Your task to perform on an android device: Clear all items from cart on ebay. Image 0: 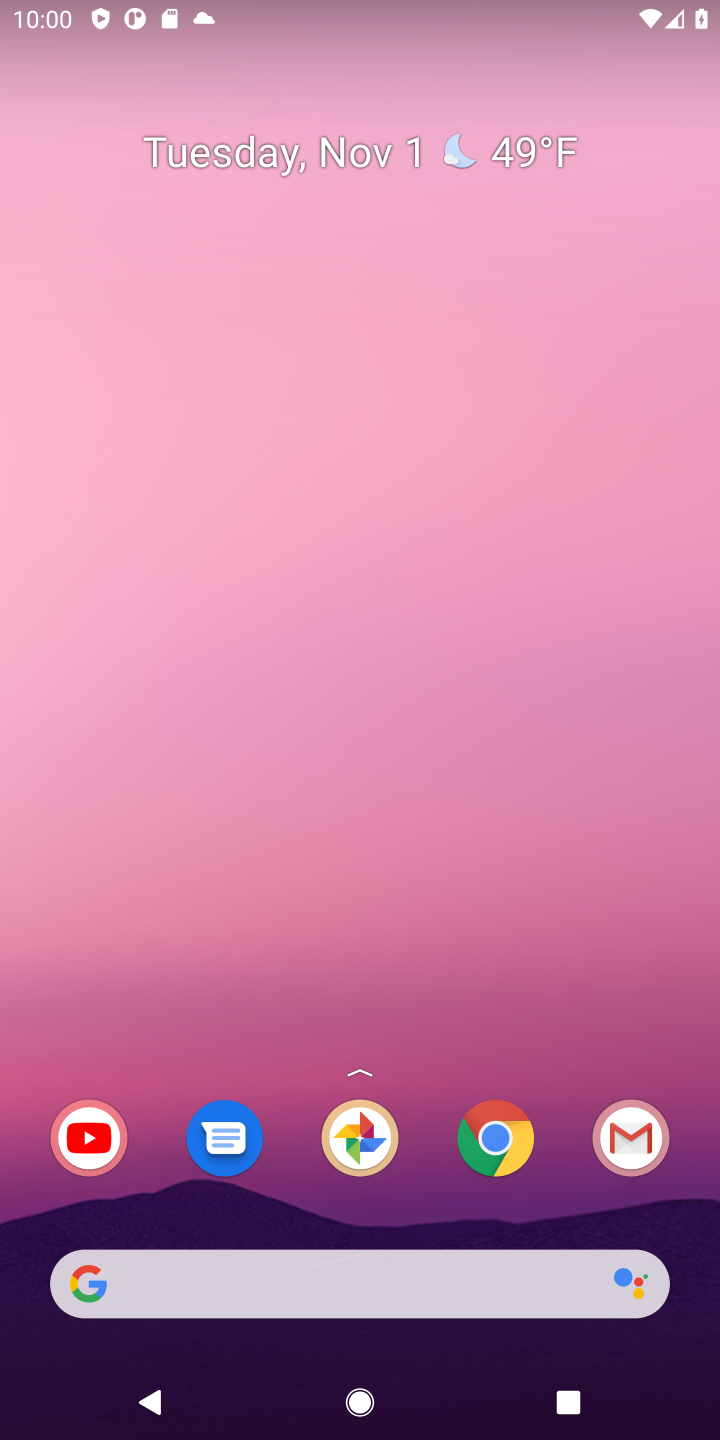
Step 0: click (496, 1140)
Your task to perform on an android device: Clear all items from cart on ebay. Image 1: 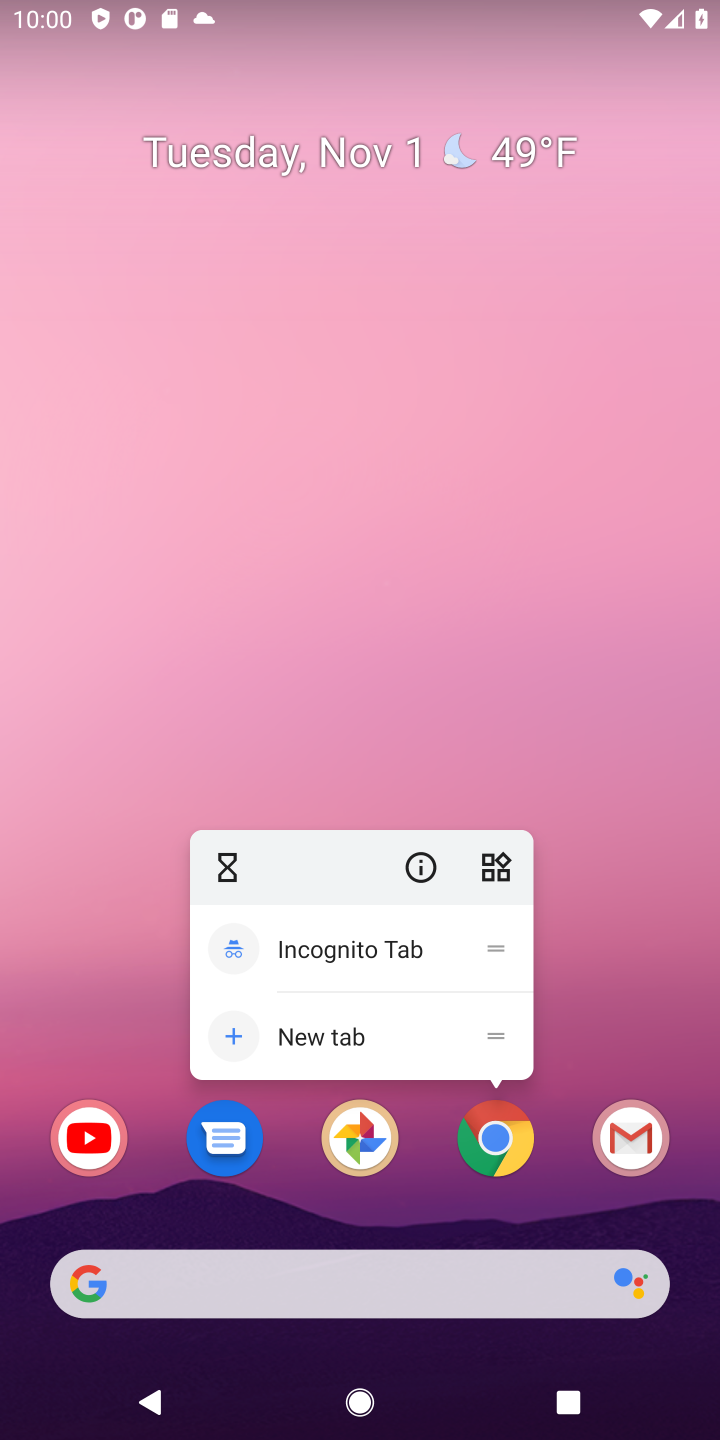
Step 1: click (498, 1134)
Your task to perform on an android device: Clear all items from cart on ebay. Image 2: 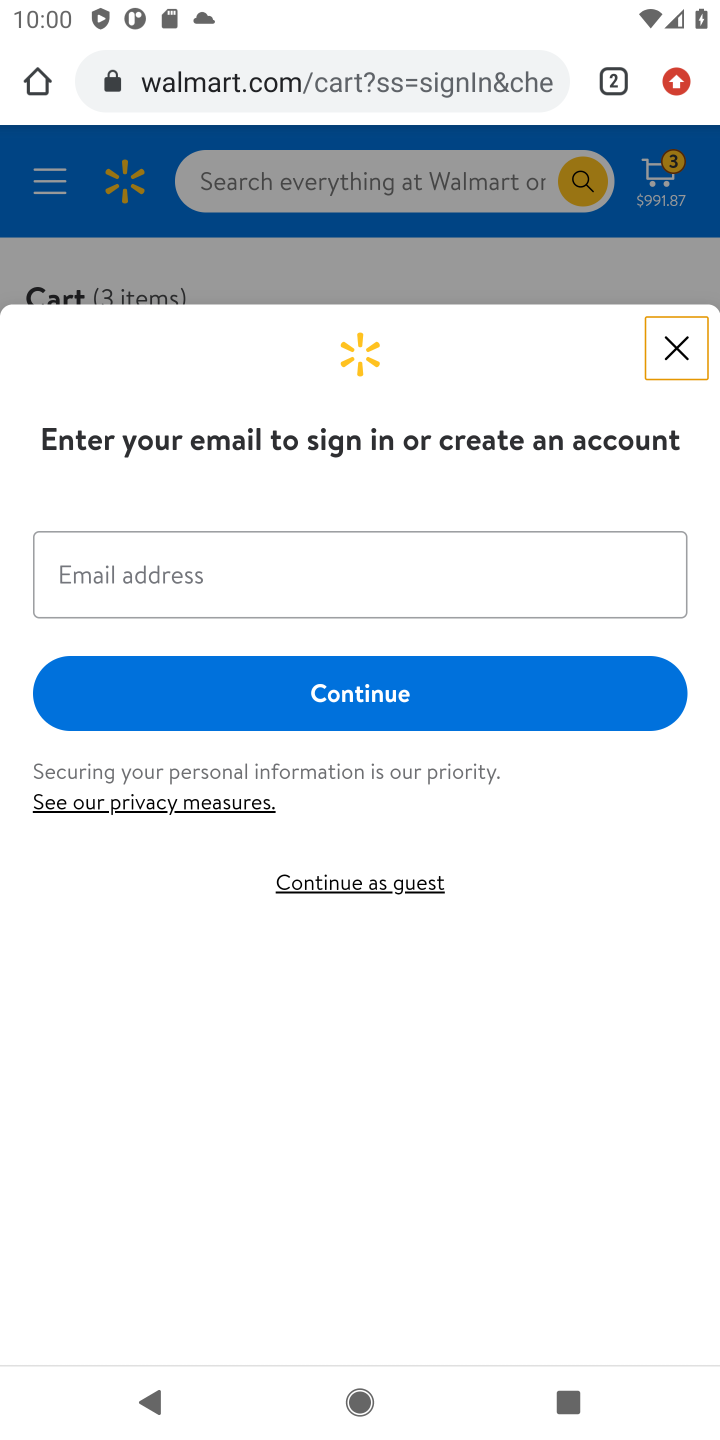
Step 2: click (368, 81)
Your task to perform on an android device: Clear all items from cart on ebay. Image 3: 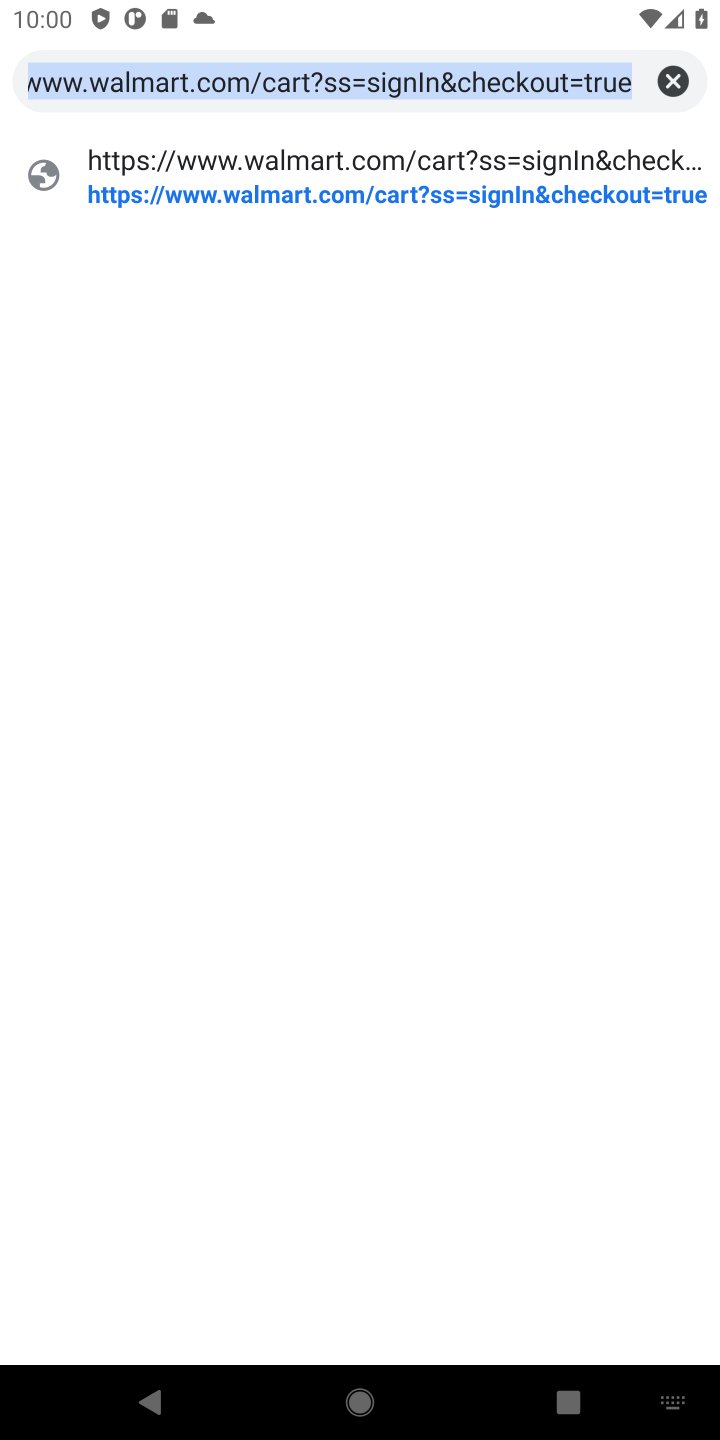
Step 3: click (666, 80)
Your task to perform on an android device: Clear all items from cart on ebay. Image 4: 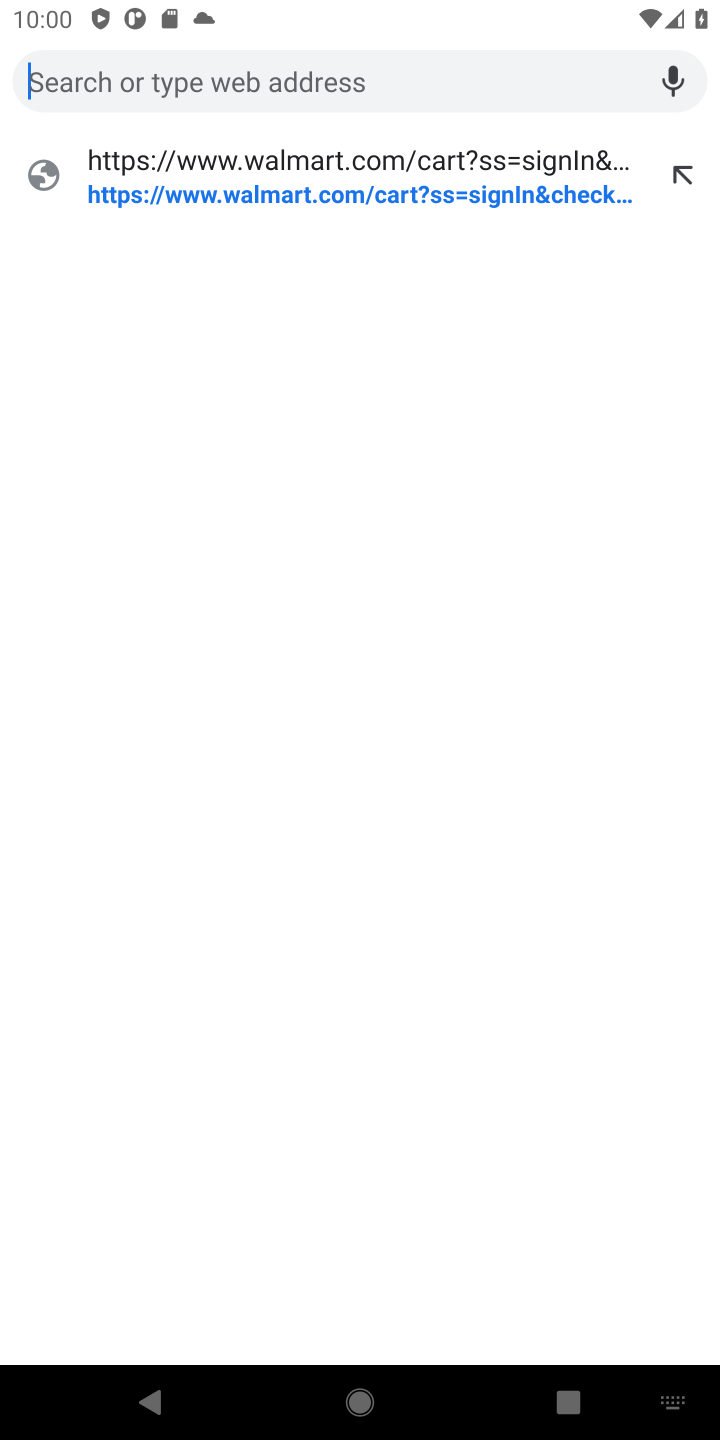
Step 4: type "ebay"
Your task to perform on an android device: Clear all items from cart on ebay. Image 5: 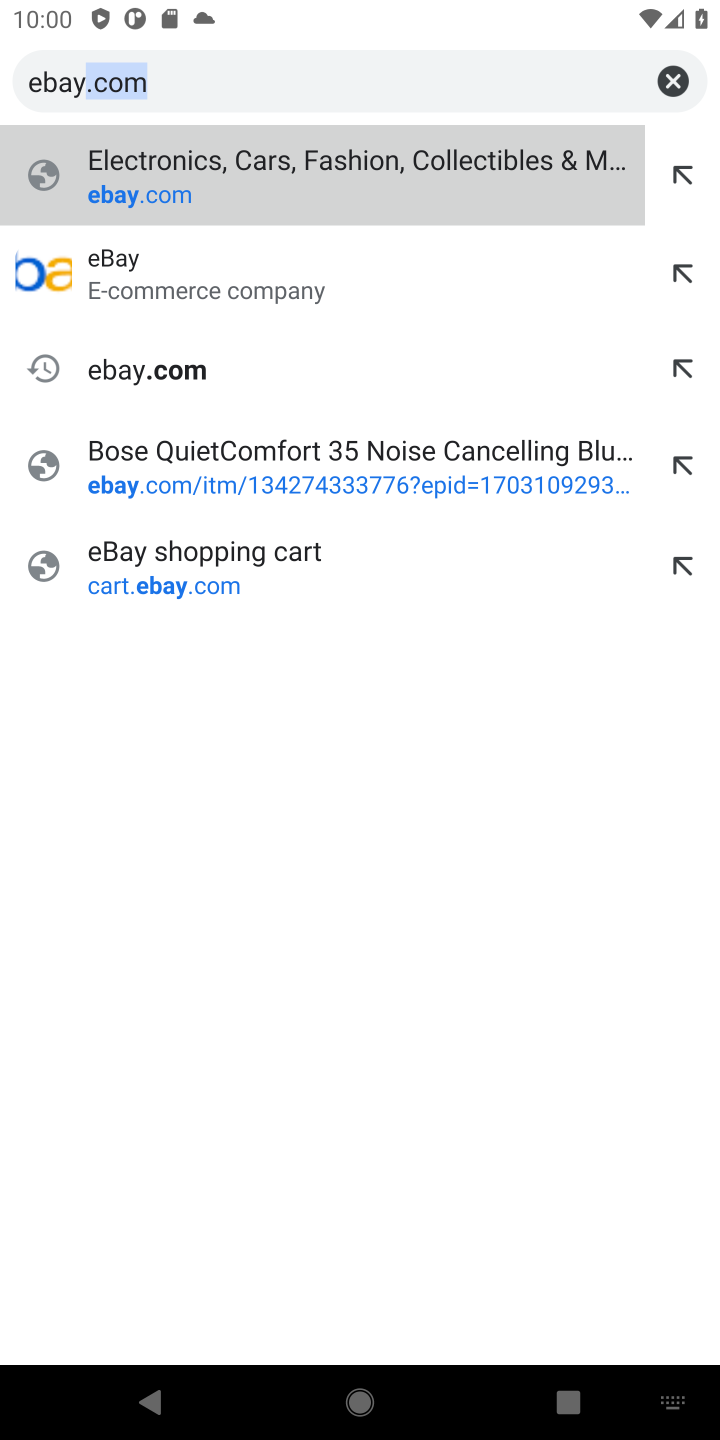
Step 5: click (182, 262)
Your task to perform on an android device: Clear all items from cart on ebay. Image 6: 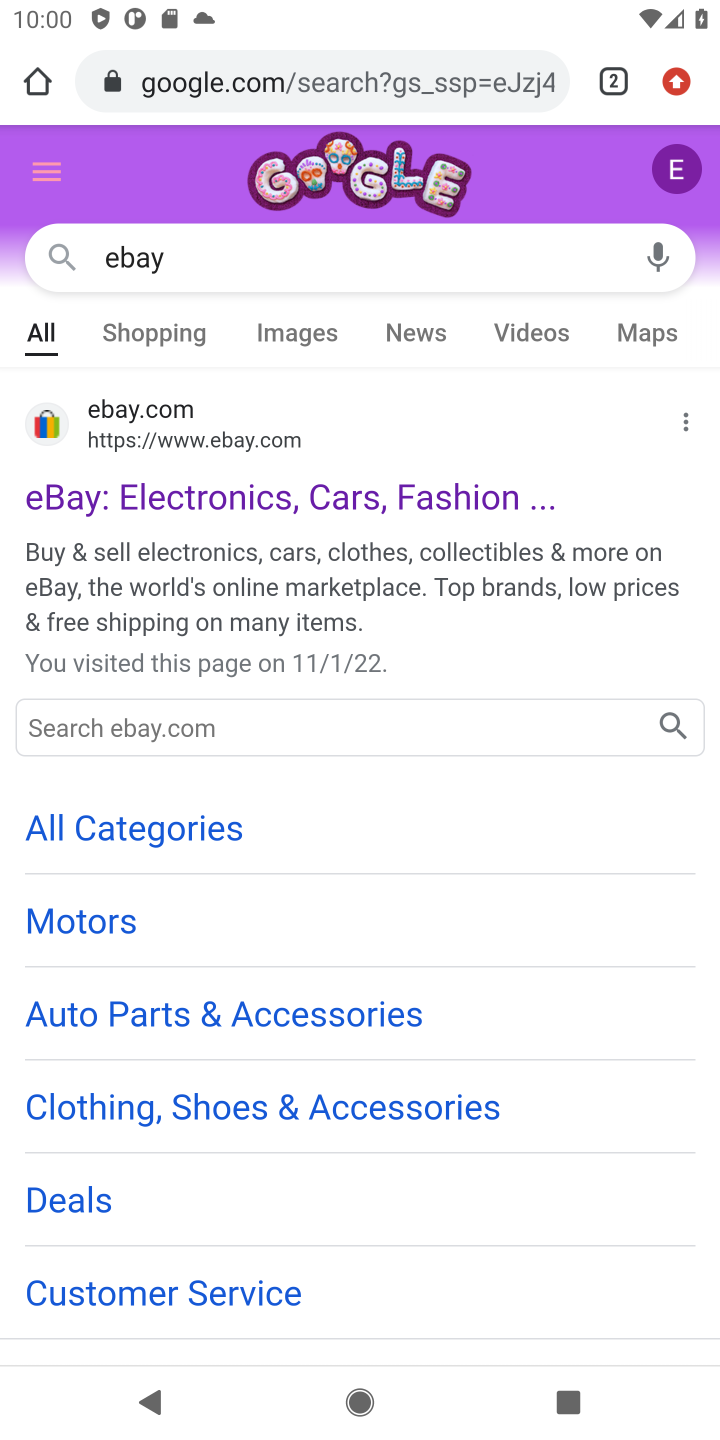
Step 6: click (330, 461)
Your task to perform on an android device: Clear all items from cart on ebay. Image 7: 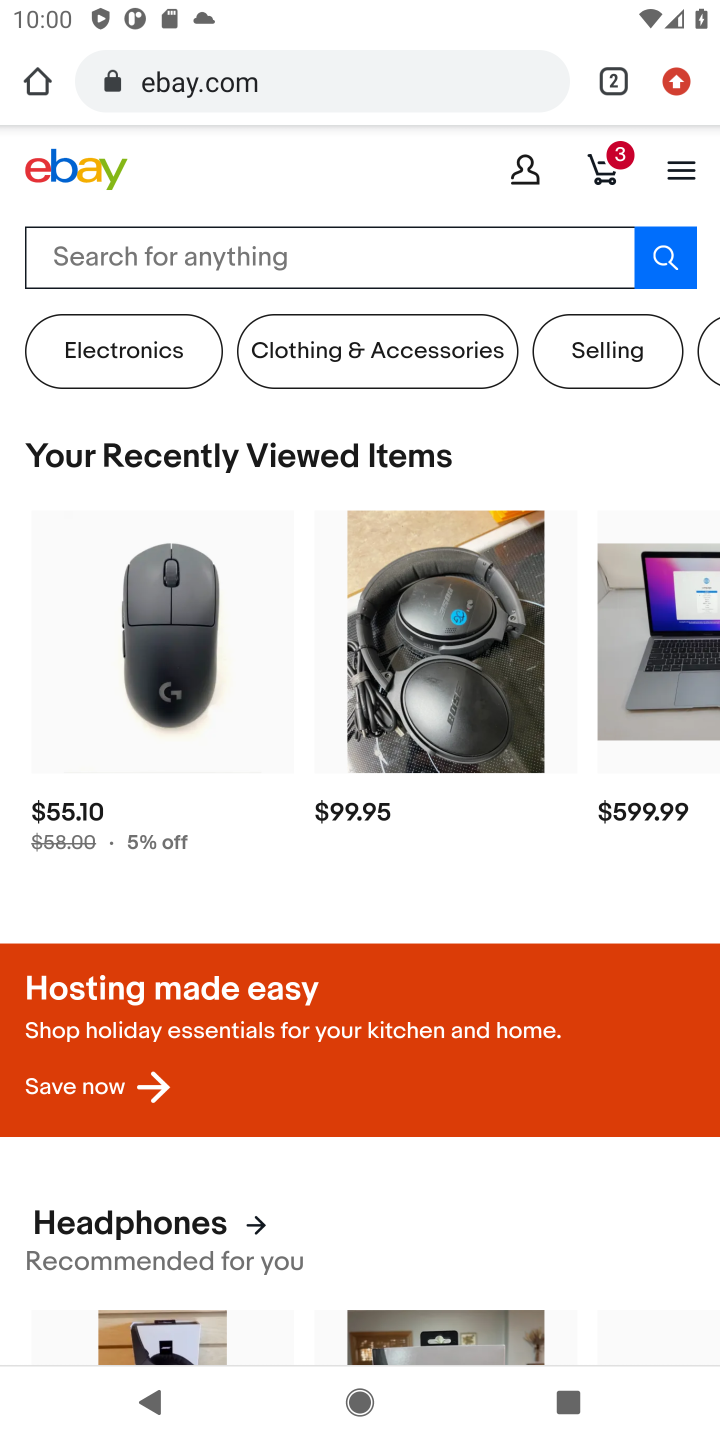
Step 7: click (607, 171)
Your task to perform on an android device: Clear all items from cart on ebay. Image 8: 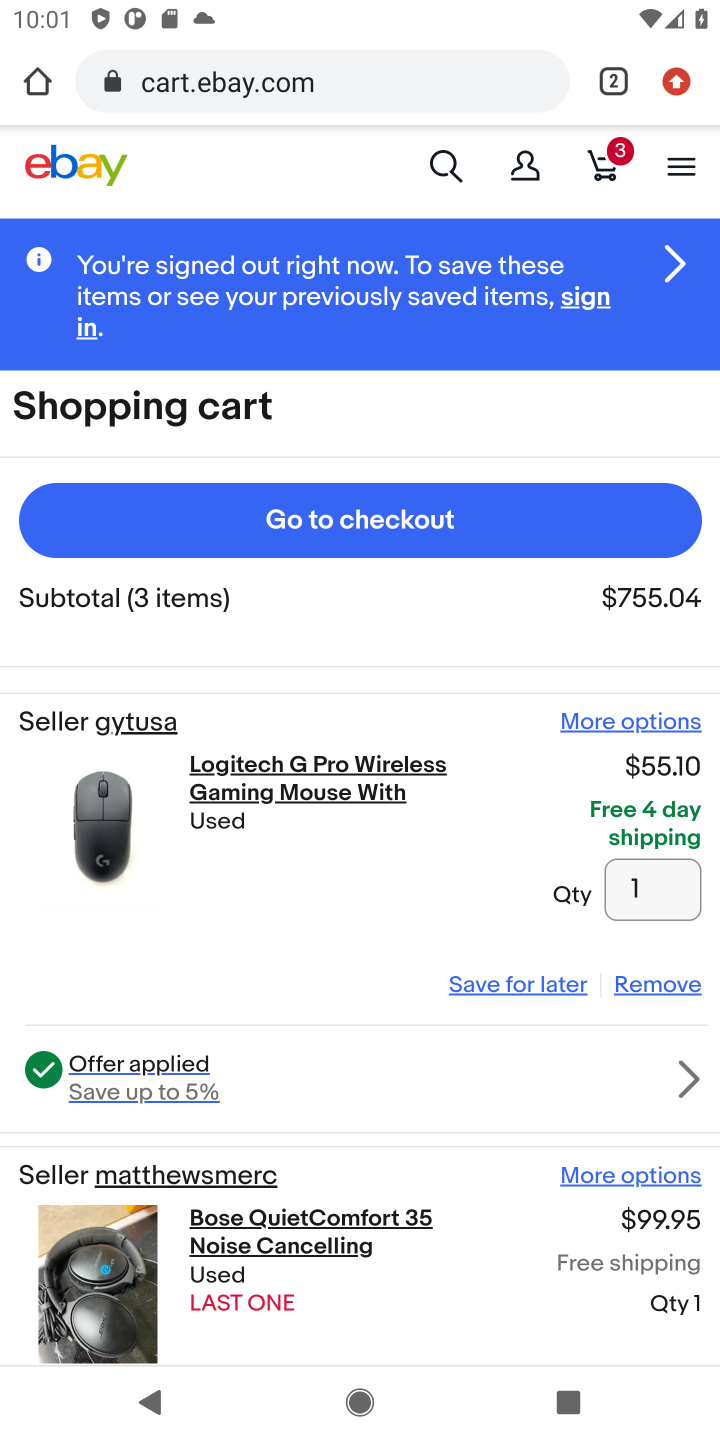
Step 8: click (645, 981)
Your task to perform on an android device: Clear all items from cart on ebay. Image 9: 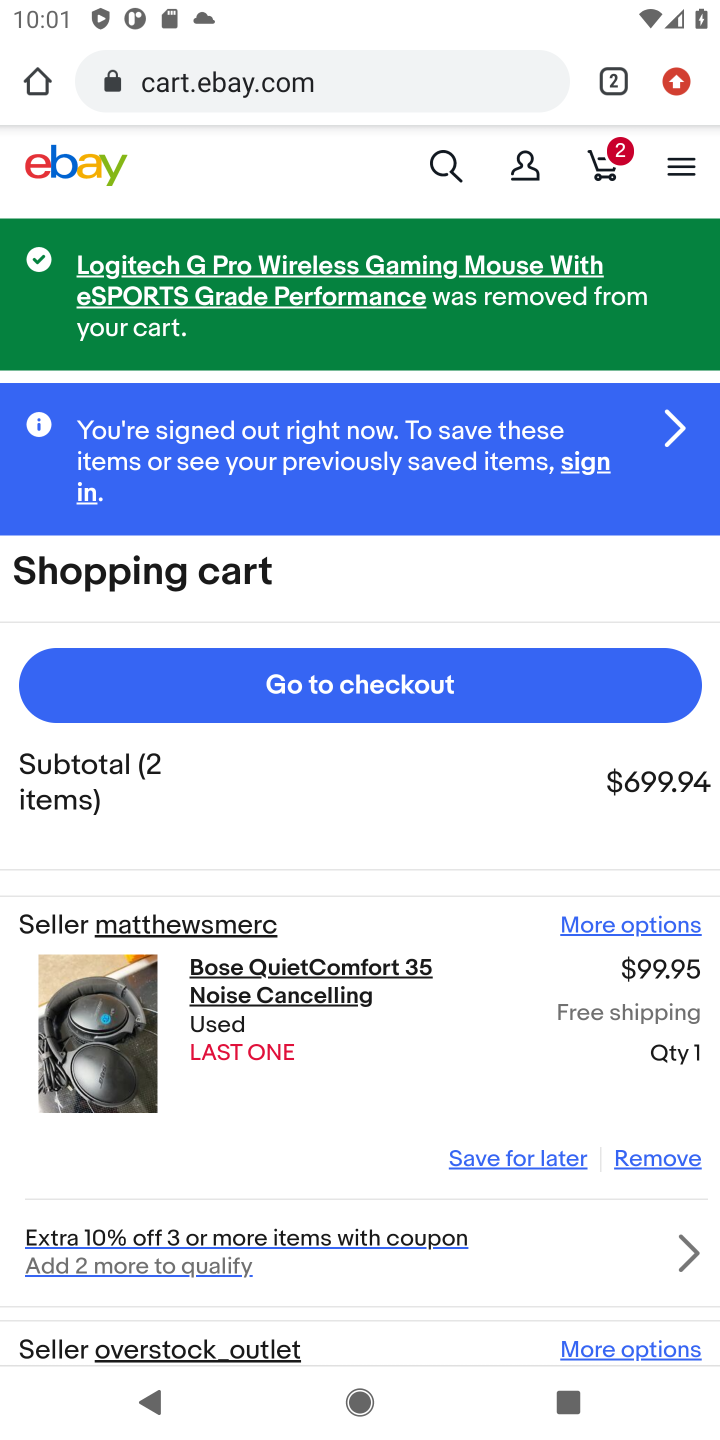
Step 9: click (658, 1158)
Your task to perform on an android device: Clear all items from cart on ebay. Image 10: 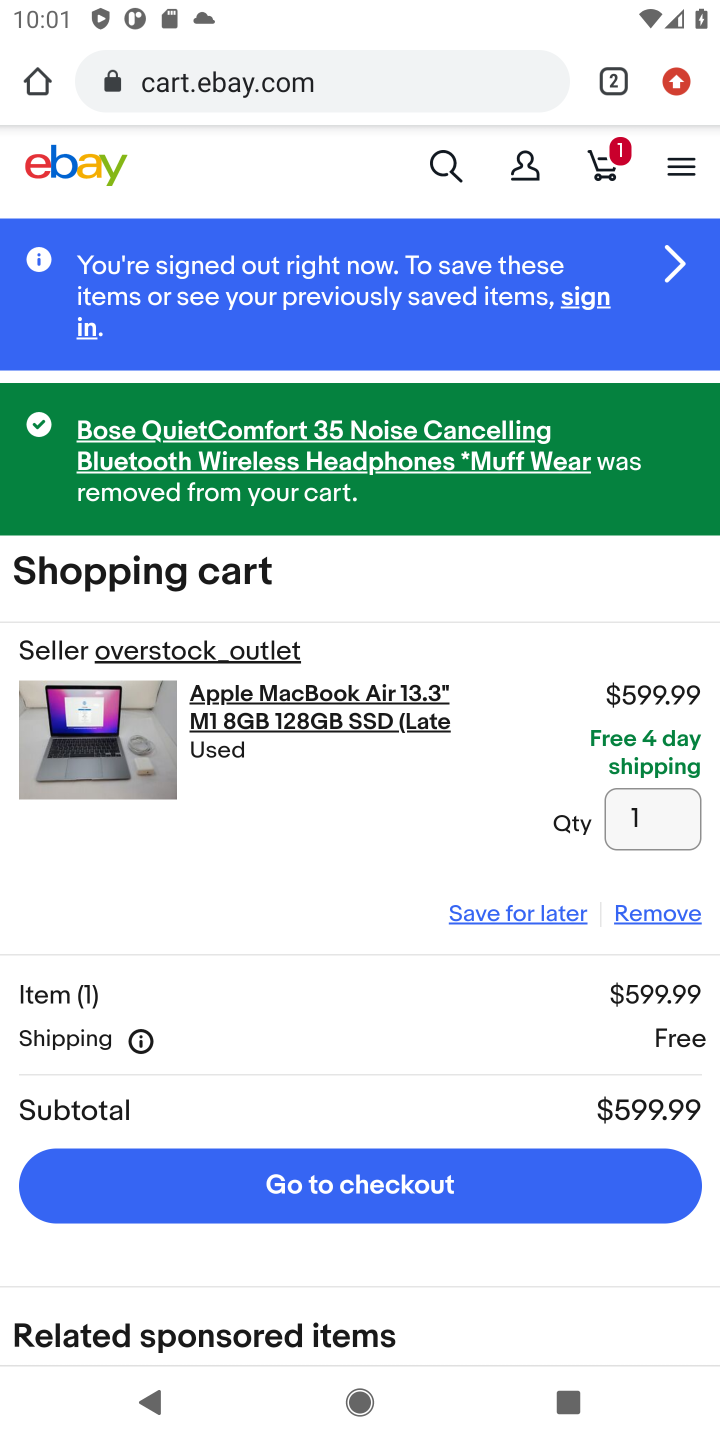
Step 10: click (662, 919)
Your task to perform on an android device: Clear all items from cart on ebay. Image 11: 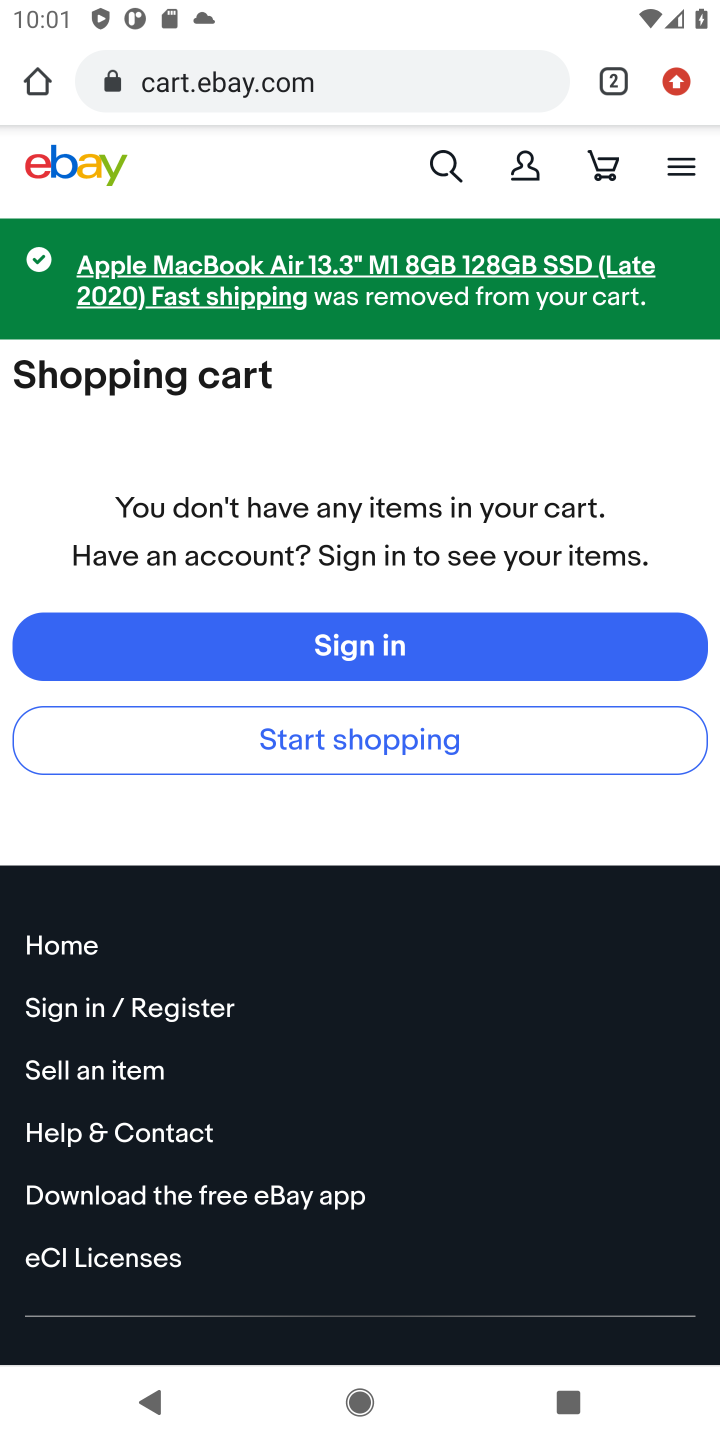
Step 11: task complete